Your task to perform on an android device: toggle improve location accuracy Image 0: 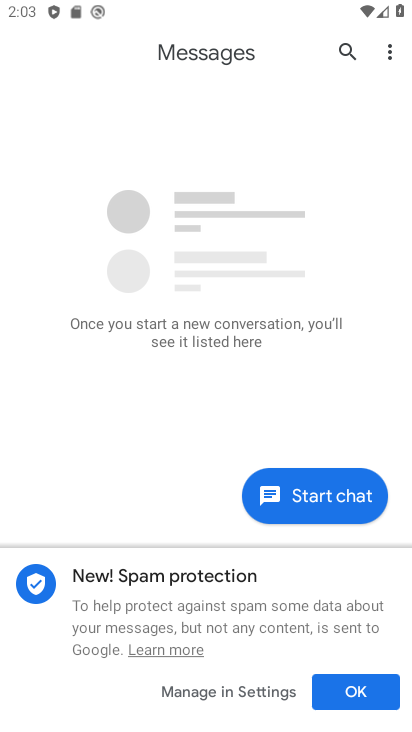
Step 0: press home button
Your task to perform on an android device: toggle improve location accuracy Image 1: 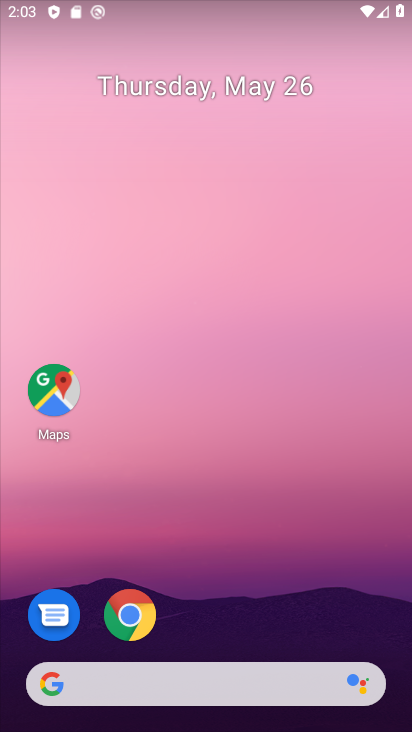
Step 1: drag from (217, 657) to (342, 143)
Your task to perform on an android device: toggle improve location accuracy Image 2: 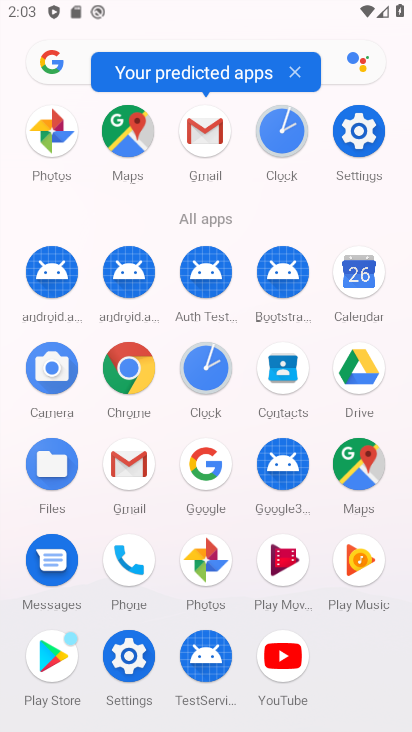
Step 2: click (130, 666)
Your task to perform on an android device: toggle improve location accuracy Image 3: 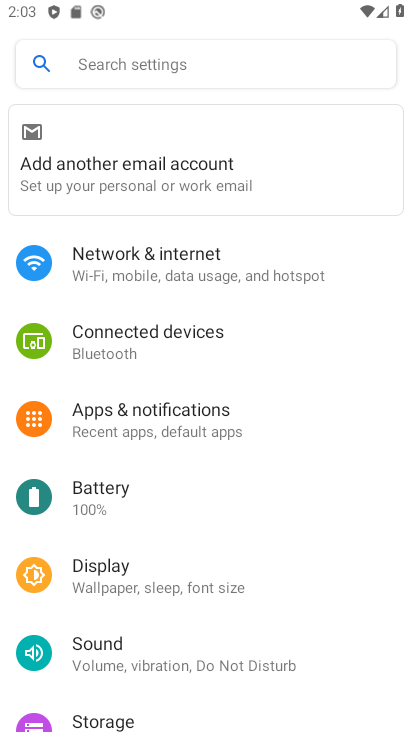
Step 3: drag from (126, 659) to (247, 302)
Your task to perform on an android device: toggle improve location accuracy Image 4: 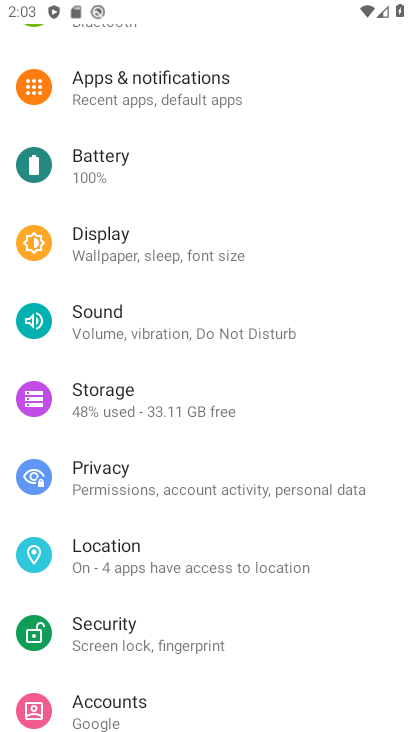
Step 4: click (185, 579)
Your task to perform on an android device: toggle improve location accuracy Image 5: 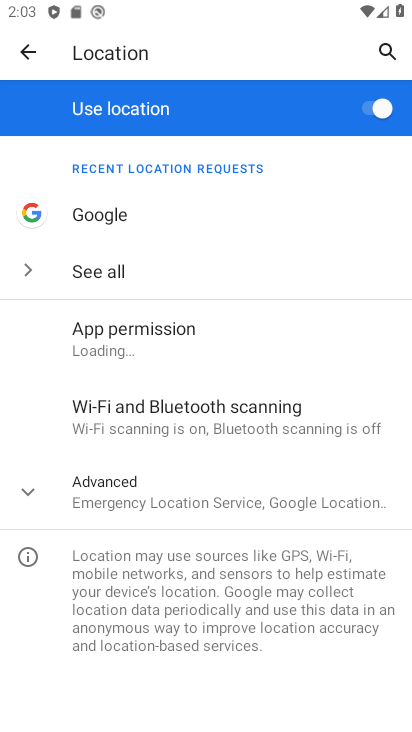
Step 5: click (271, 477)
Your task to perform on an android device: toggle improve location accuracy Image 6: 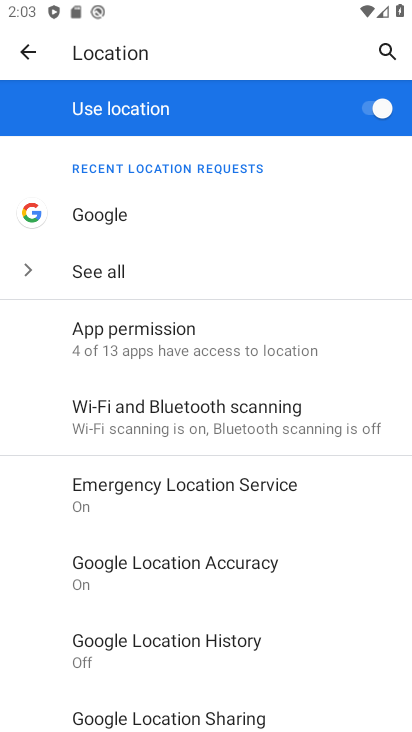
Step 6: click (286, 572)
Your task to perform on an android device: toggle improve location accuracy Image 7: 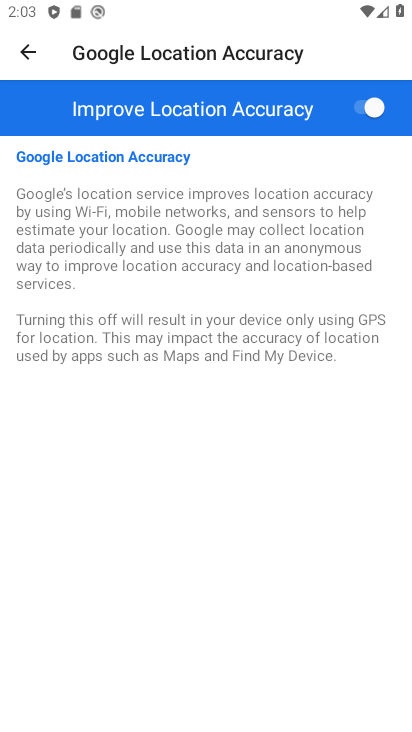
Step 7: click (364, 110)
Your task to perform on an android device: toggle improve location accuracy Image 8: 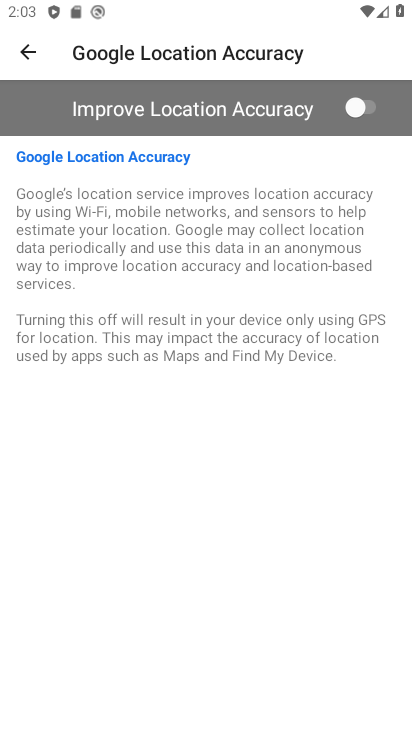
Step 8: task complete